Your task to perform on an android device: show emergency info Image 0: 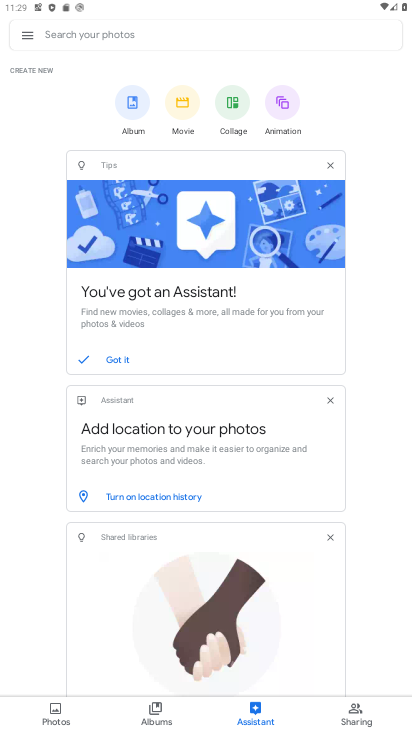
Step 0: drag from (26, 692) to (306, 30)
Your task to perform on an android device: show emergency info Image 1: 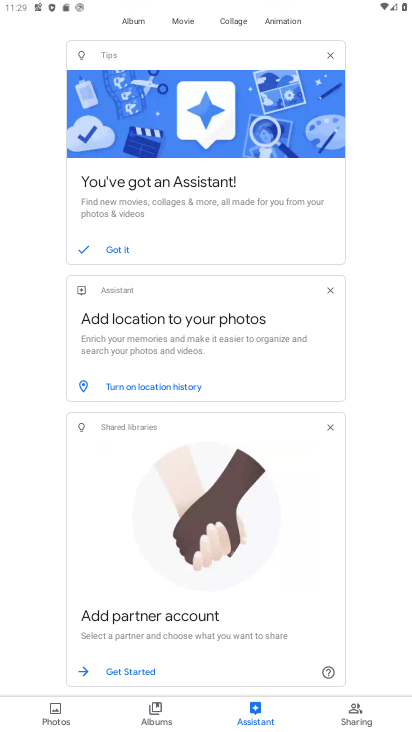
Step 1: press home button
Your task to perform on an android device: show emergency info Image 2: 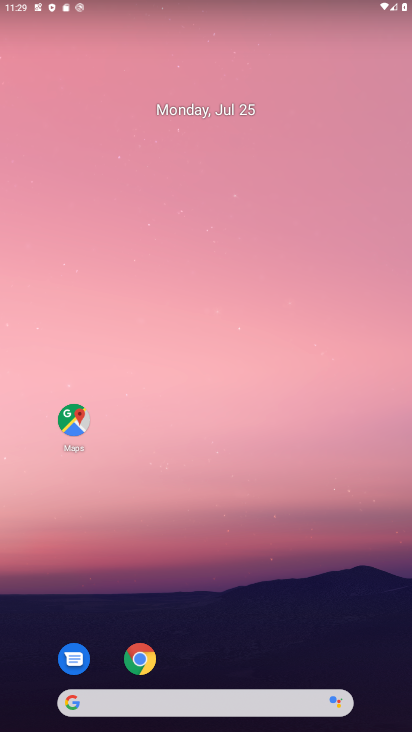
Step 2: drag from (33, 696) to (289, 31)
Your task to perform on an android device: show emergency info Image 3: 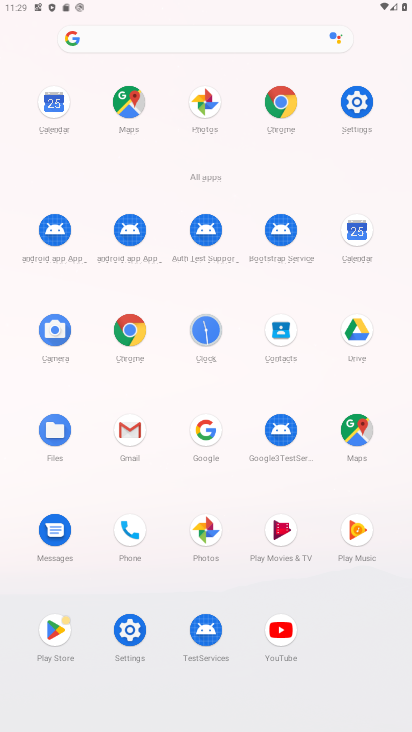
Step 3: click (123, 632)
Your task to perform on an android device: show emergency info Image 4: 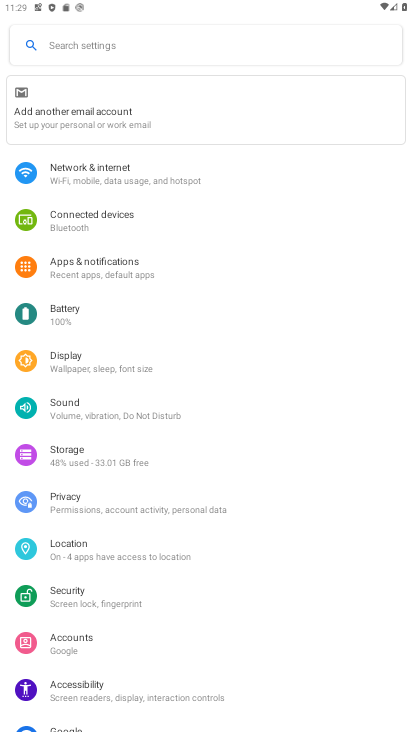
Step 4: click (113, 277)
Your task to perform on an android device: show emergency info Image 5: 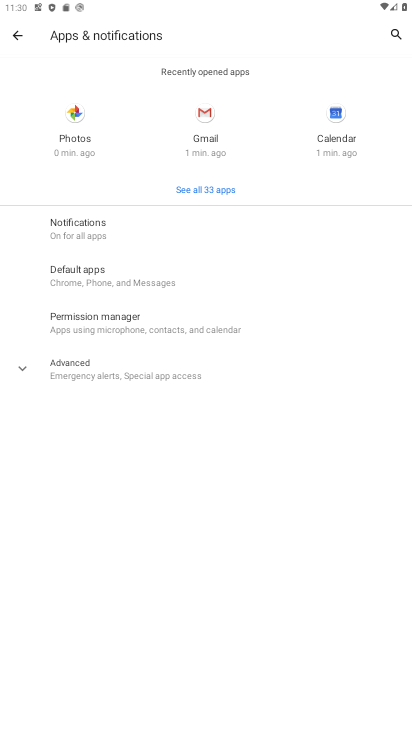
Step 5: click (117, 372)
Your task to perform on an android device: show emergency info Image 6: 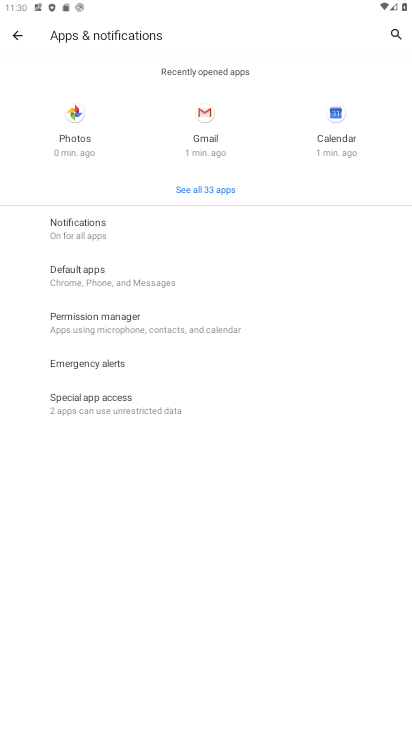
Step 6: click (110, 370)
Your task to perform on an android device: show emergency info Image 7: 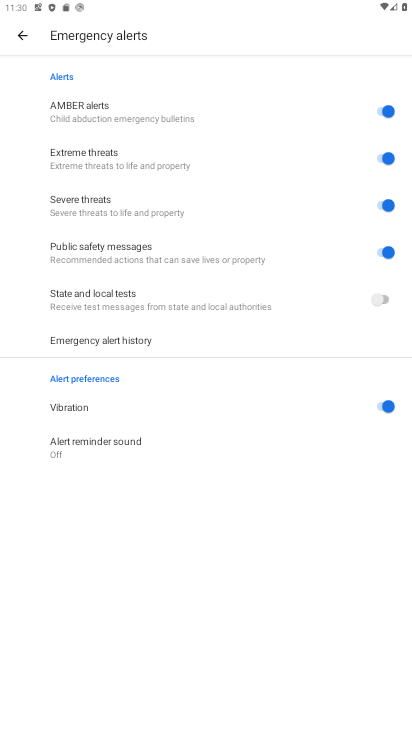
Step 7: task complete